Your task to perform on an android device: search for starred emails in the gmail app Image 0: 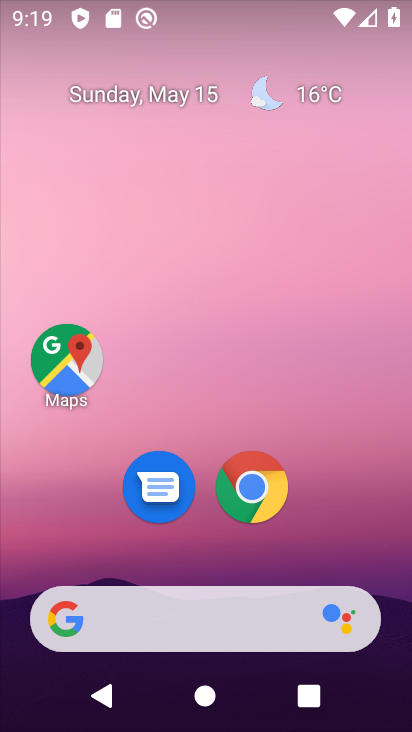
Step 0: drag from (356, 500) to (353, 118)
Your task to perform on an android device: search for starred emails in the gmail app Image 1: 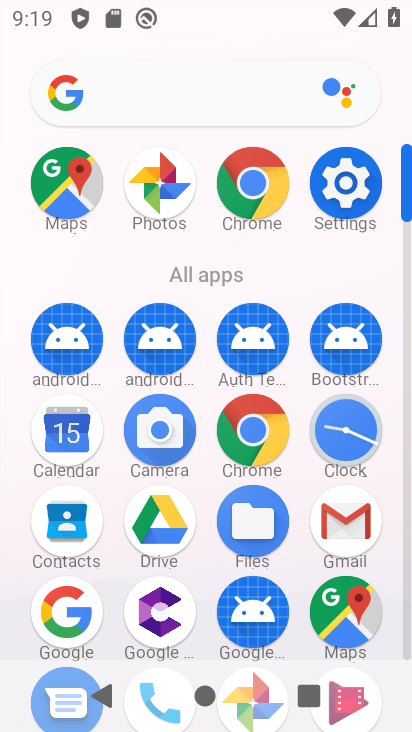
Step 1: click (346, 520)
Your task to perform on an android device: search for starred emails in the gmail app Image 2: 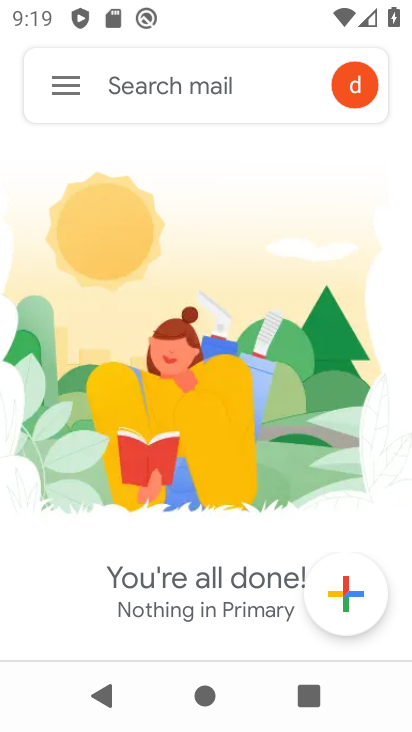
Step 2: click (72, 93)
Your task to perform on an android device: search for starred emails in the gmail app Image 3: 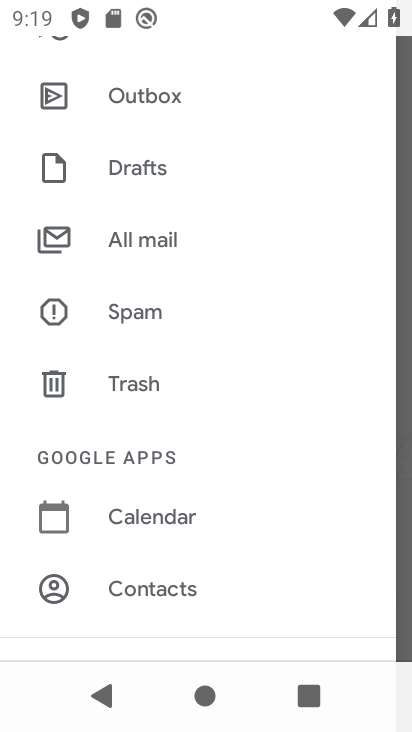
Step 3: drag from (184, 126) to (197, 568)
Your task to perform on an android device: search for starred emails in the gmail app Image 4: 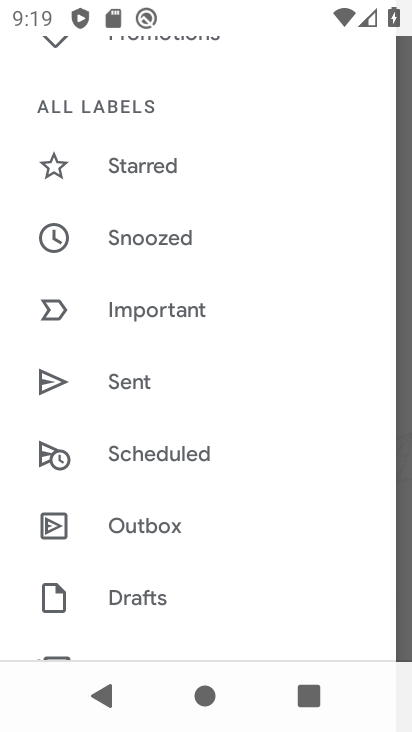
Step 4: drag from (229, 479) to (236, 527)
Your task to perform on an android device: search for starred emails in the gmail app Image 5: 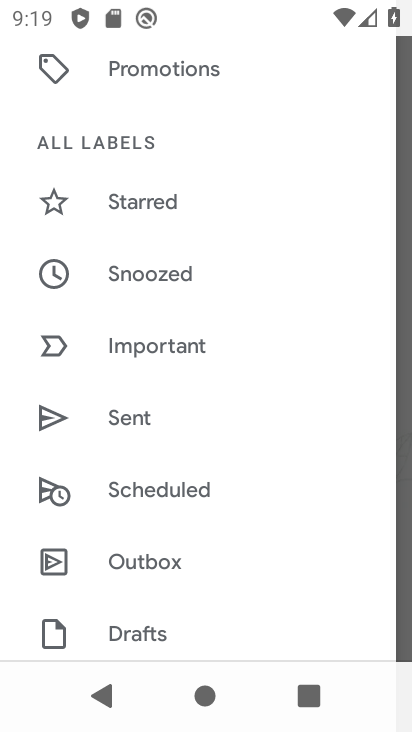
Step 5: click (167, 217)
Your task to perform on an android device: search for starred emails in the gmail app Image 6: 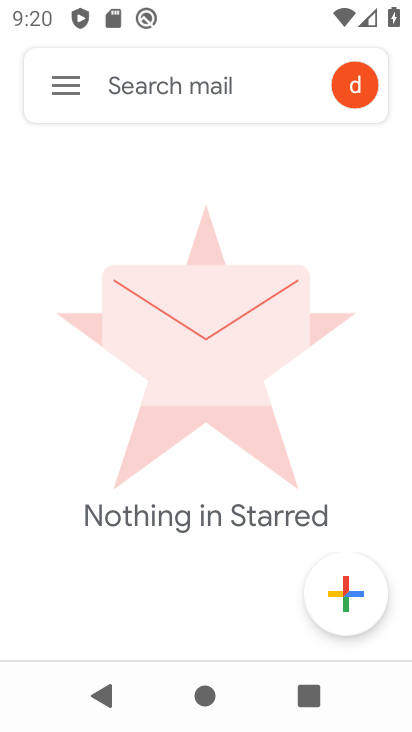
Step 6: task complete